Your task to perform on an android device: Open display settings Image 0: 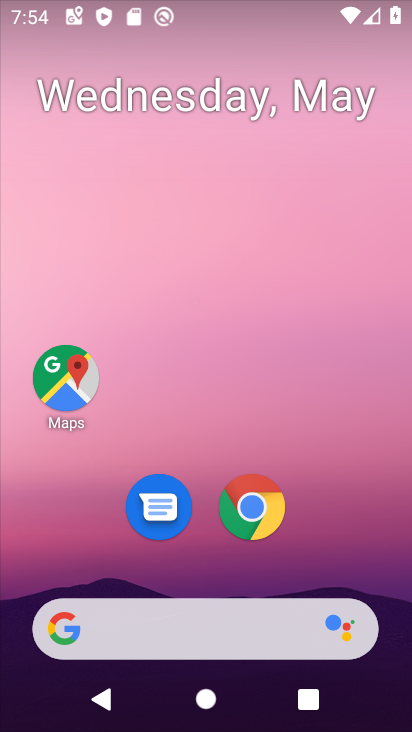
Step 0: drag from (327, 542) to (314, 155)
Your task to perform on an android device: Open display settings Image 1: 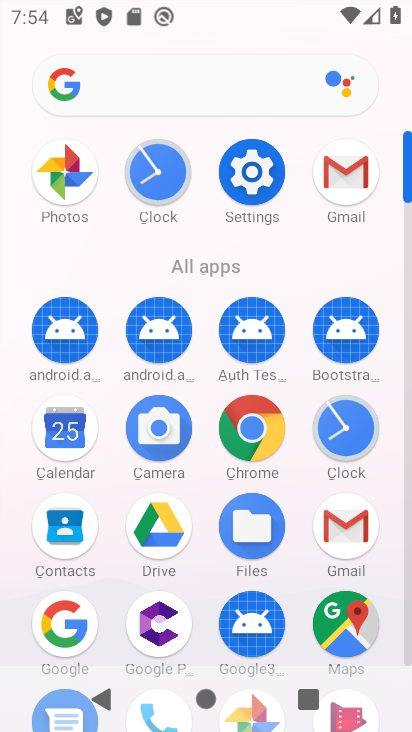
Step 1: click (257, 165)
Your task to perform on an android device: Open display settings Image 2: 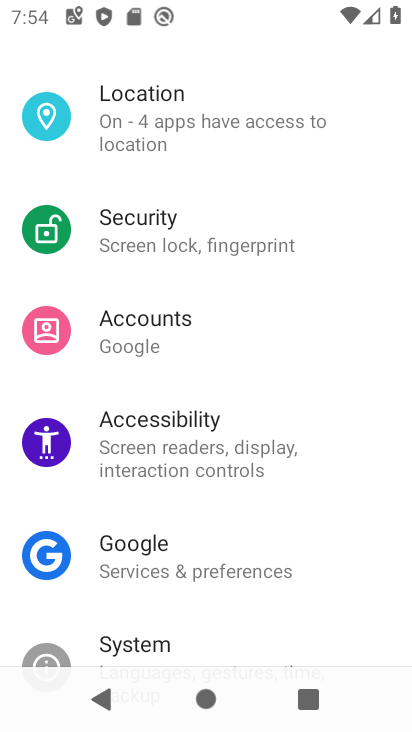
Step 2: drag from (212, 164) to (230, 527)
Your task to perform on an android device: Open display settings Image 3: 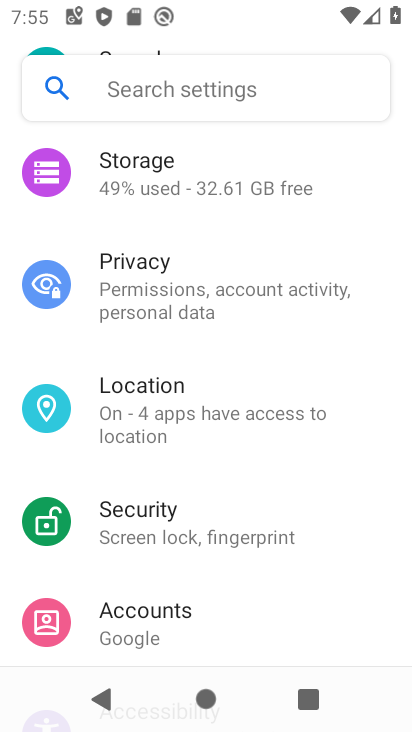
Step 3: drag from (187, 245) to (217, 564)
Your task to perform on an android device: Open display settings Image 4: 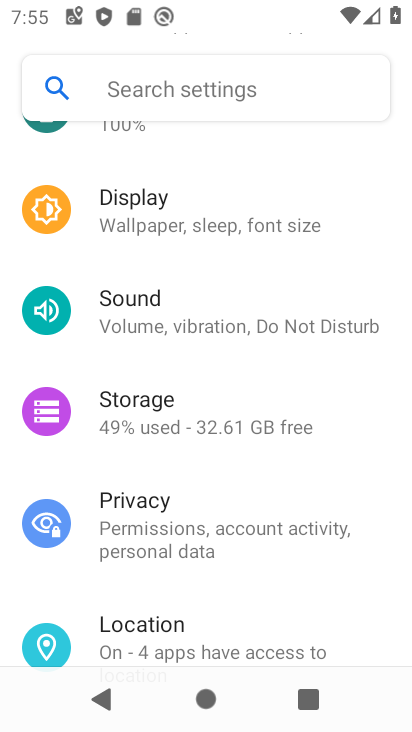
Step 4: click (202, 210)
Your task to perform on an android device: Open display settings Image 5: 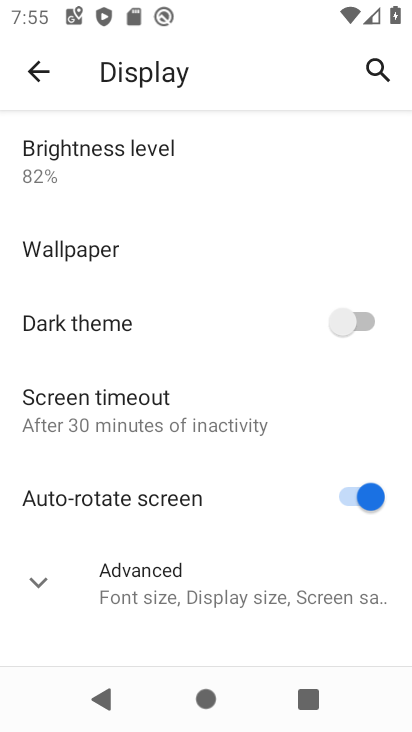
Step 5: task complete